Your task to perform on an android device: remove spam from my inbox in the gmail app Image 0: 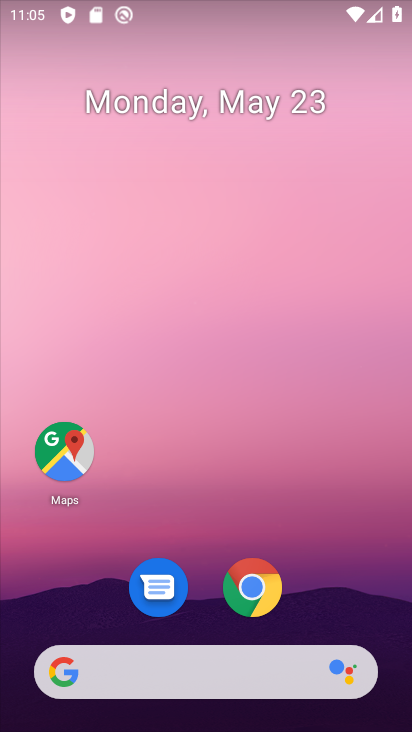
Step 0: drag from (356, 617) to (286, 141)
Your task to perform on an android device: remove spam from my inbox in the gmail app Image 1: 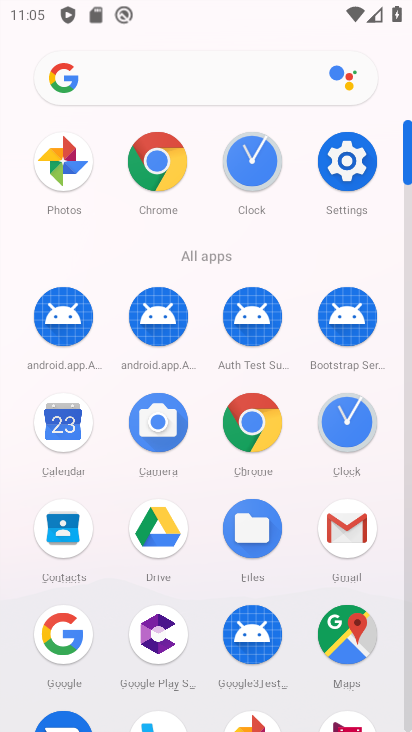
Step 1: click (353, 523)
Your task to perform on an android device: remove spam from my inbox in the gmail app Image 2: 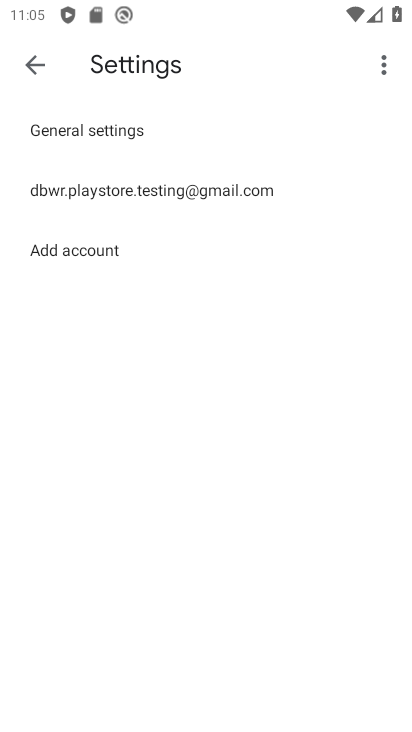
Step 2: click (31, 59)
Your task to perform on an android device: remove spam from my inbox in the gmail app Image 3: 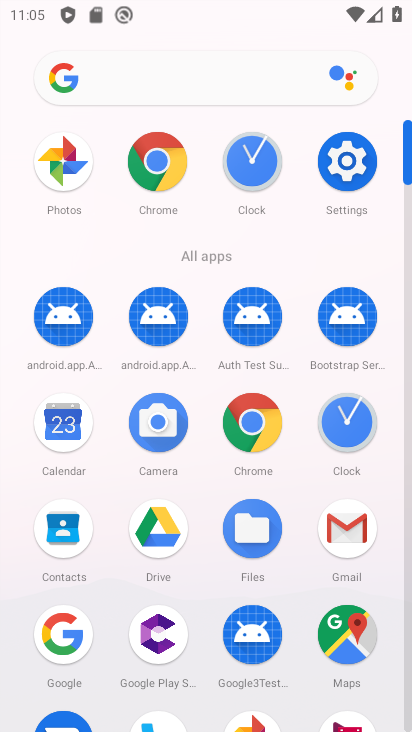
Step 3: click (365, 537)
Your task to perform on an android device: remove spam from my inbox in the gmail app Image 4: 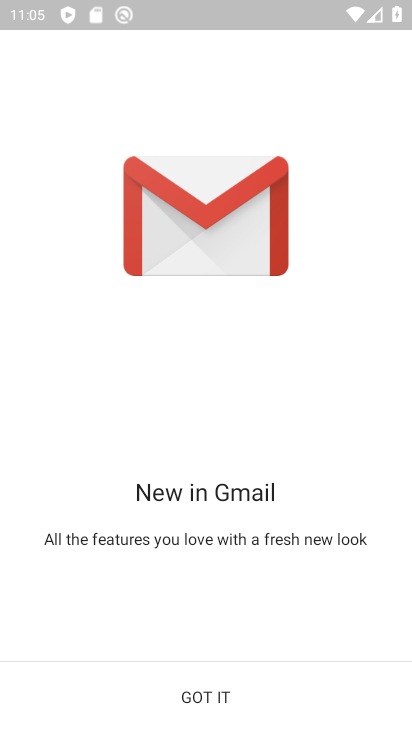
Step 4: click (222, 704)
Your task to perform on an android device: remove spam from my inbox in the gmail app Image 5: 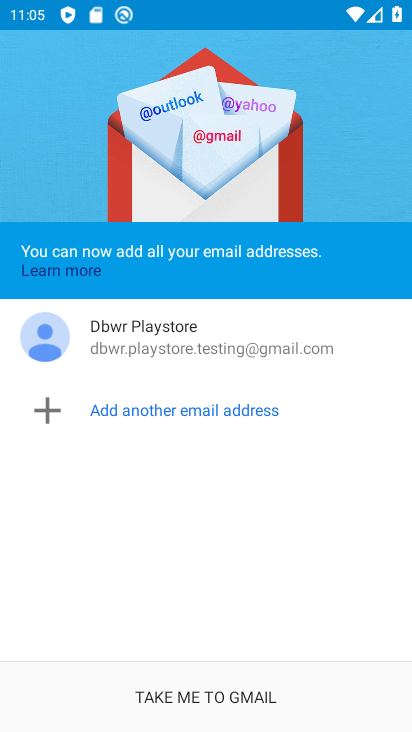
Step 5: click (222, 704)
Your task to perform on an android device: remove spam from my inbox in the gmail app Image 6: 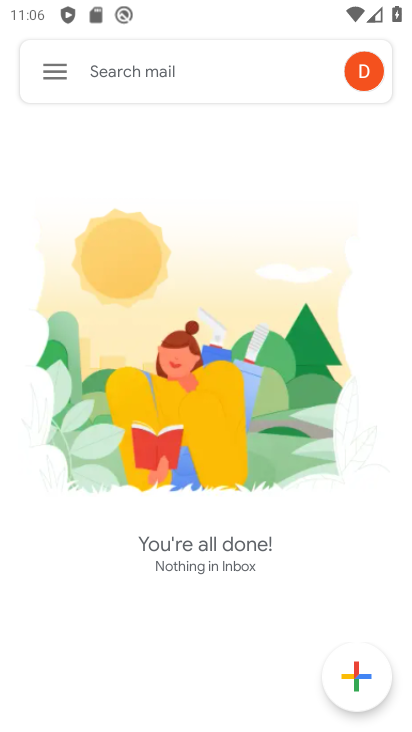
Step 6: click (46, 70)
Your task to perform on an android device: remove spam from my inbox in the gmail app Image 7: 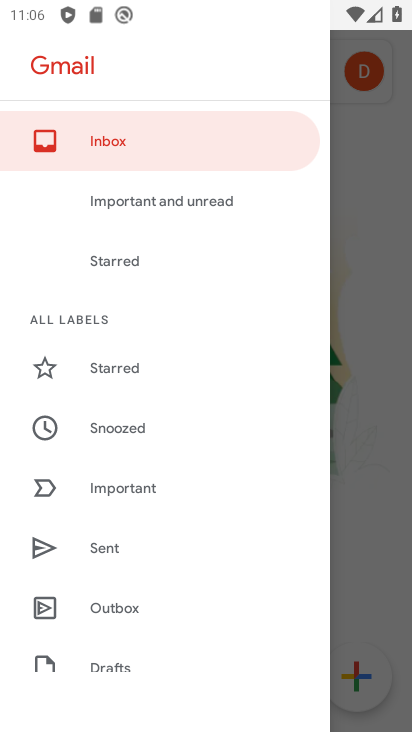
Step 7: drag from (206, 648) to (193, 306)
Your task to perform on an android device: remove spam from my inbox in the gmail app Image 8: 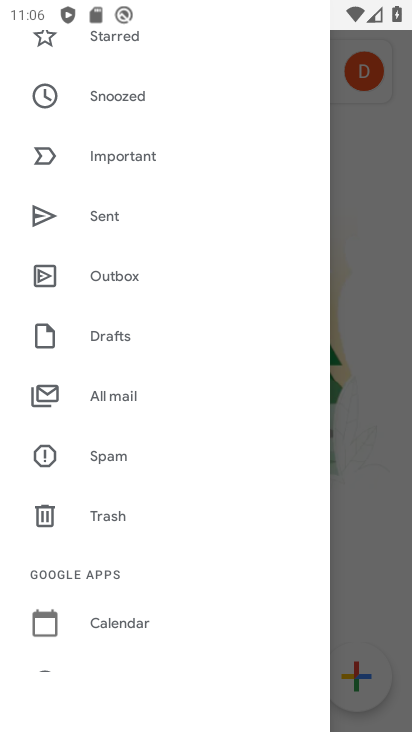
Step 8: click (141, 465)
Your task to perform on an android device: remove spam from my inbox in the gmail app Image 9: 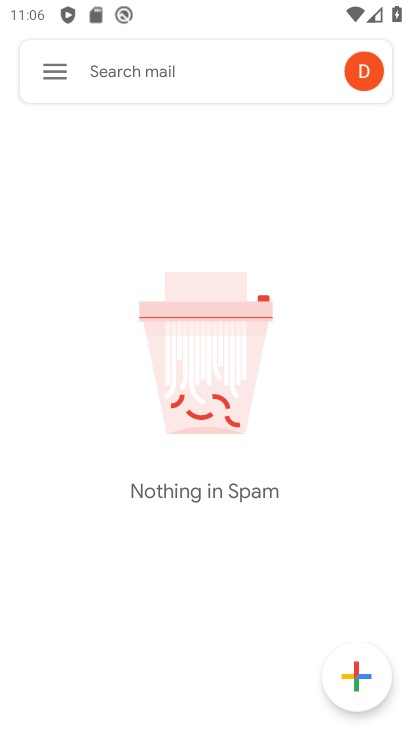
Step 9: task complete